Your task to perform on an android device: turn on data saver in the chrome app Image 0: 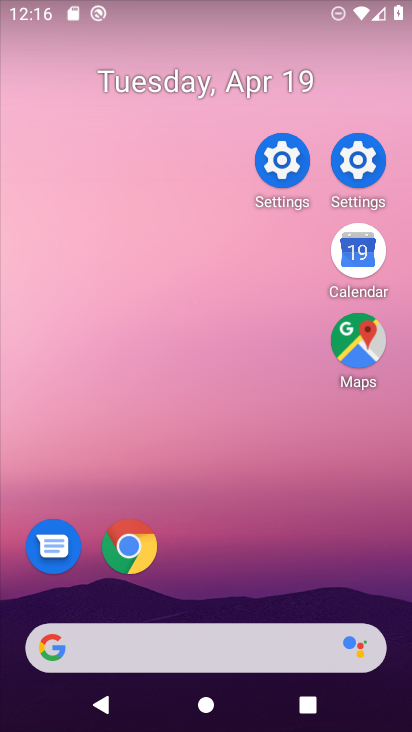
Step 0: drag from (225, 646) to (203, 79)
Your task to perform on an android device: turn on data saver in the chrome app Image 1: 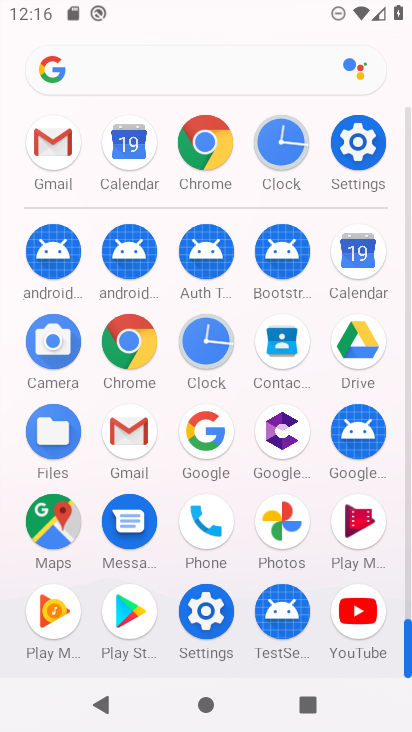
Step 1: click (216, 143)
Your task to perform on an android device: turn on data saver in the chrome app Image 2: 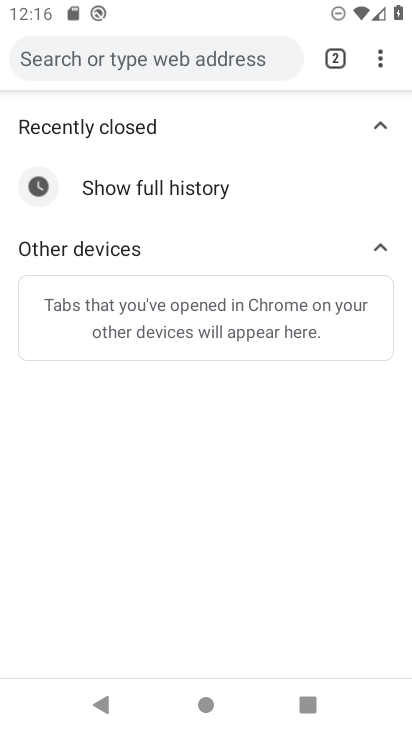
Step 2: click (384, 54)
Your task to perform on an android device: turn on data saver in the chrome app Image 3: 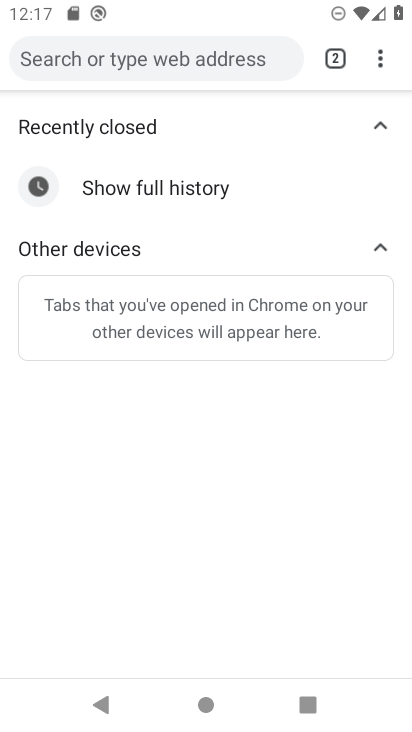
Step 3: click (383, 53)
Your task to perform on an android device: turn on data saver in the chrome app Image 4: 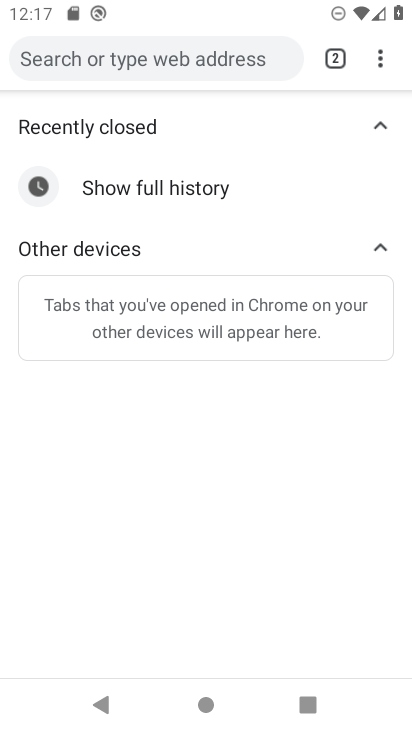
Step 4: click (374, 50)
Your task to perform on an android device: turn on data saver in the chrome app Image 5: 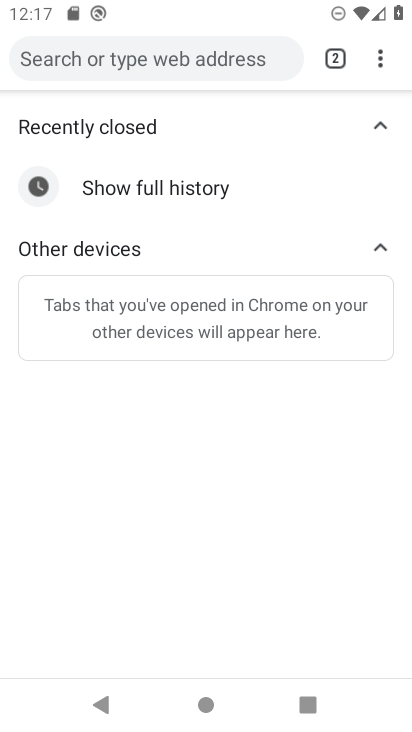
Step 5: click (374, 51)
Your task to perform on an android device: turn on data saver in the chrome app Image 6: 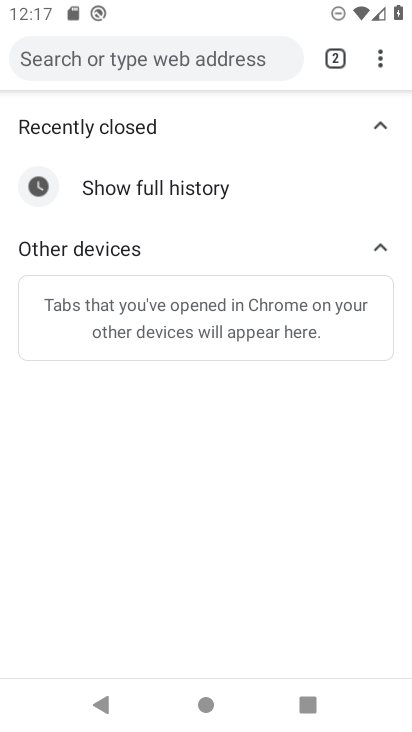
Step 6: click (379, 63)
Your task to perform on an android device: turn on data saver in the chrome app Image 7: 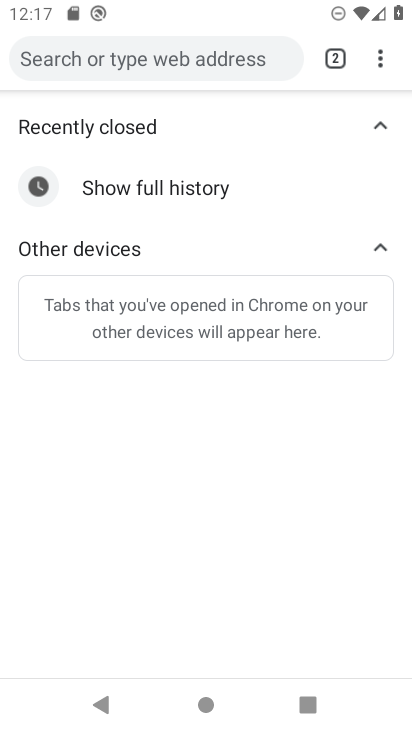
Step 7: click (379, 63)
Your task to perform on an android device: turn on data saver in the chrome app Image 8: 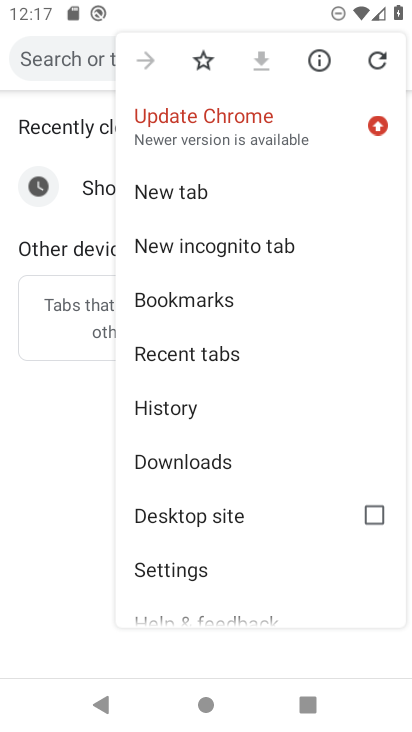
Step 8: click (175, 572)
Your task to perform on an android device: turn on data saver in the chrome app Image 9: 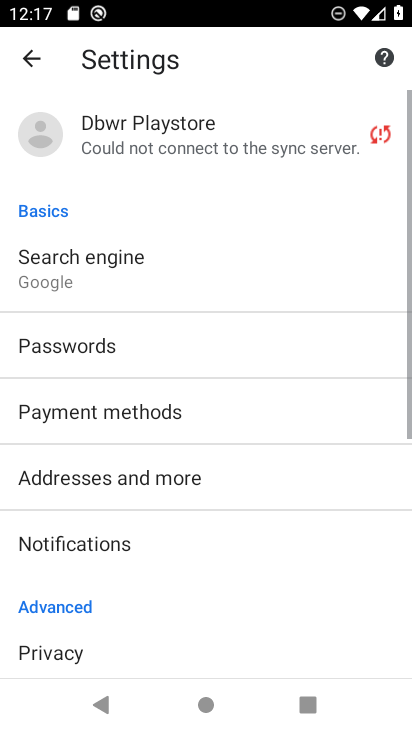
Step 9: drag from (134, 354) to (128, 152)
Your task to perform on an android device: turn on data saver in the chrome app Image 10: 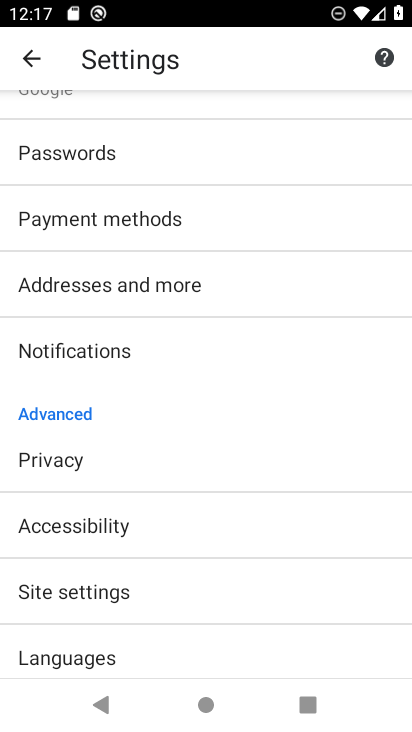
Step 10: drag from (214, 482) to (285, 280)
Your task to perform on an android device: turn on data saver in the chrome app Image 11: 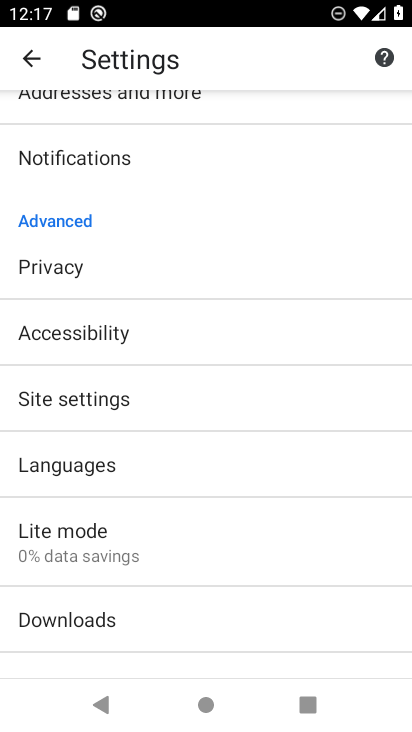
Step 11: click (68, 533)
Your task to perform on an android device: turn on data saver in the chrome app Image 12: 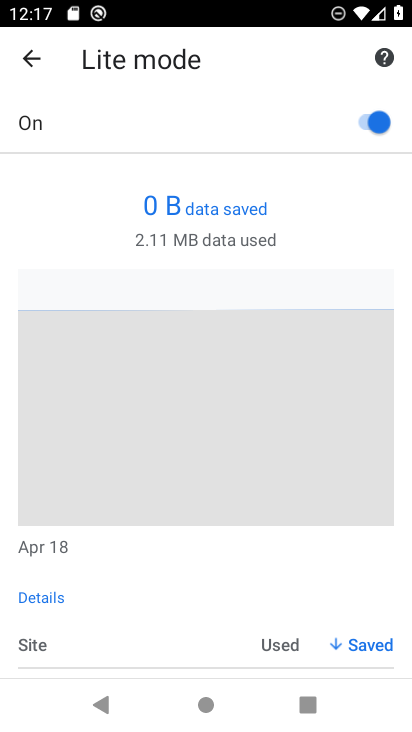
Step 12: task complete